Your task to perform on an android device: Open CNN.com Image 0: 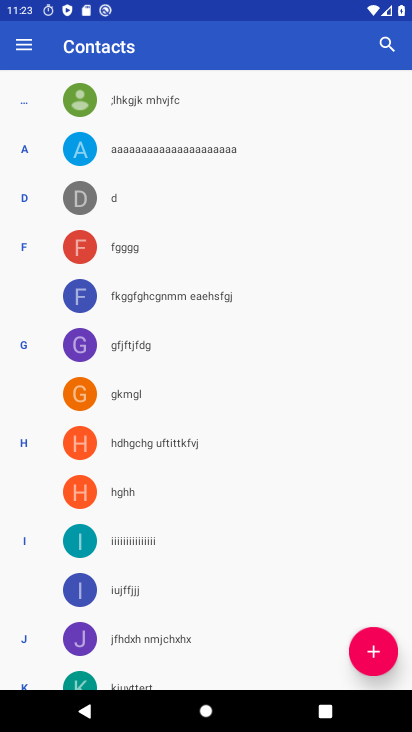
Step 0: press back button
Your task to perform on an android device: Open CNN.com Image 1: 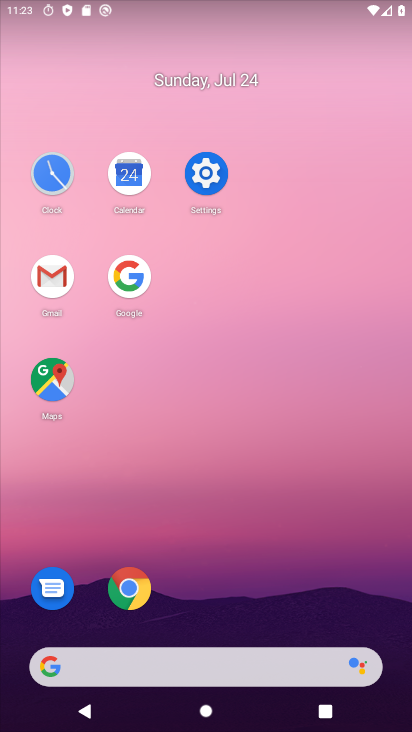
Step 1: click (149, 592)
Your task to perform on an android device: Open CNN.com Image 2: 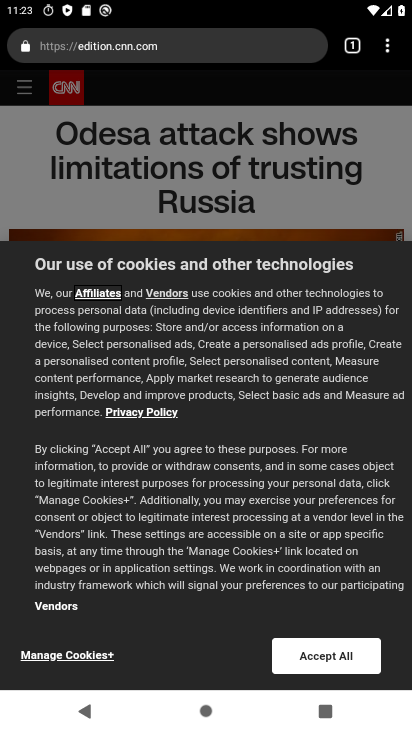
Step 2: task complete